Your task to perform on an android device: Open Chrome and go to the settings page Image 0: 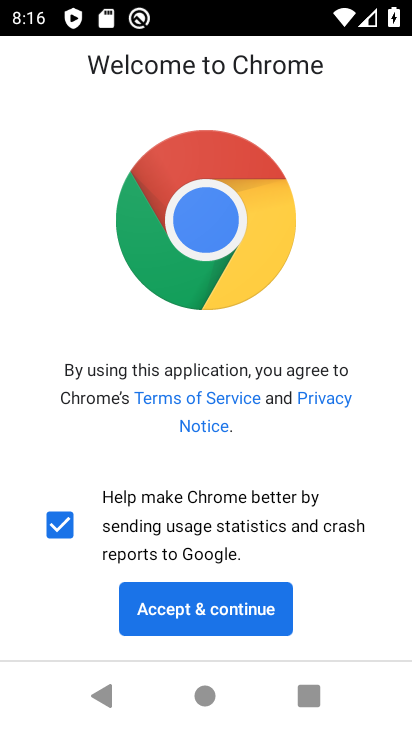
Step 0: press home button
Your task to perform on an android device: Open Chrome and go to the settings page Image 1: 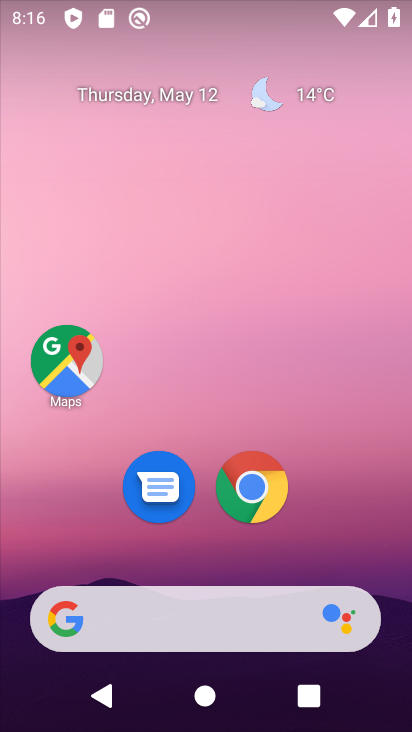
Step 1: click (245, 486)
Your task to perform on an android device: Open Chrome and go to the settings page Image 2: 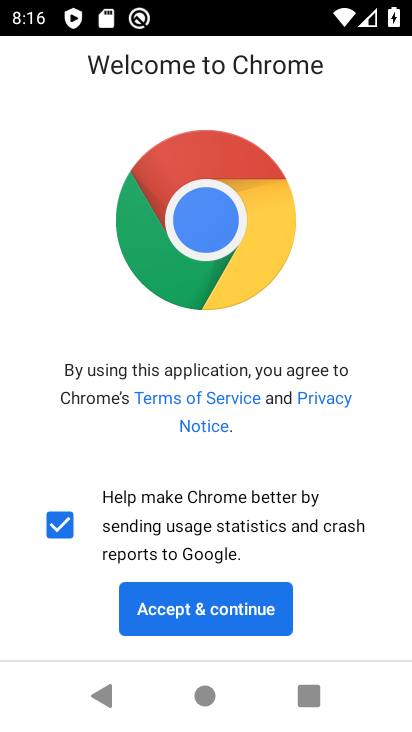
Step 2: click (191, 605)
Your task to perform on an android device: Open Chrome and go to the settings page Image 3: 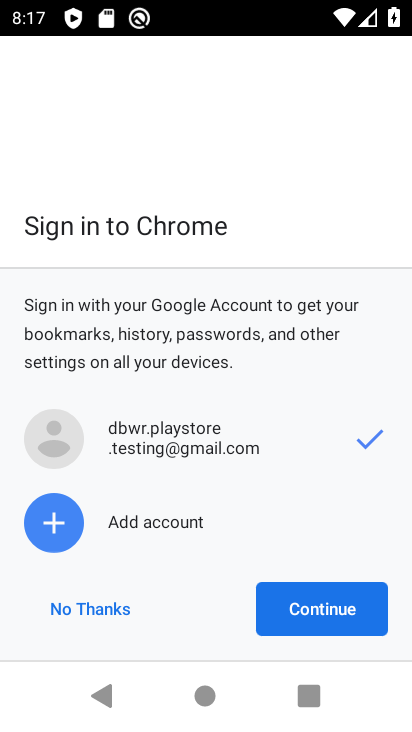
Step 3: click (91, 606)
Your task to perform on an android device: Open Chrome and go to the settings page Image 4: 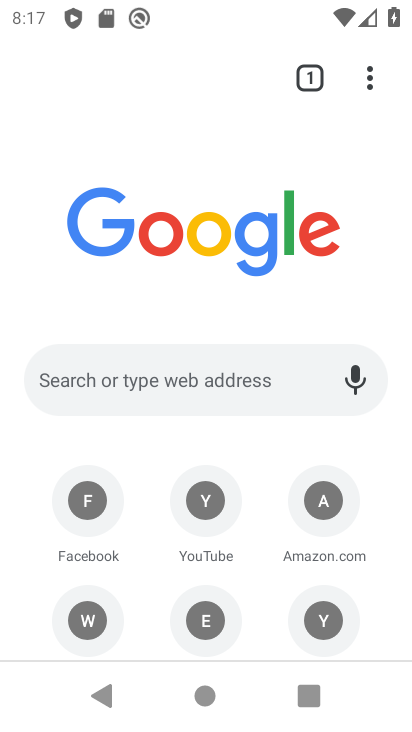
Step 4: click (360, 78)
Your task to perform on an android device: Open Chrome and go to the settings page Image 5: 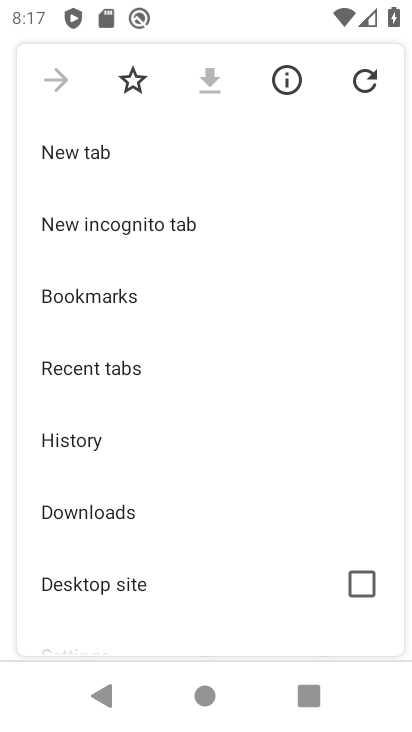
Step 5: drag from (129, 627) to (344, 107)
Your task to perform on an android device: Open Chrome and go to the settings page Image 6: 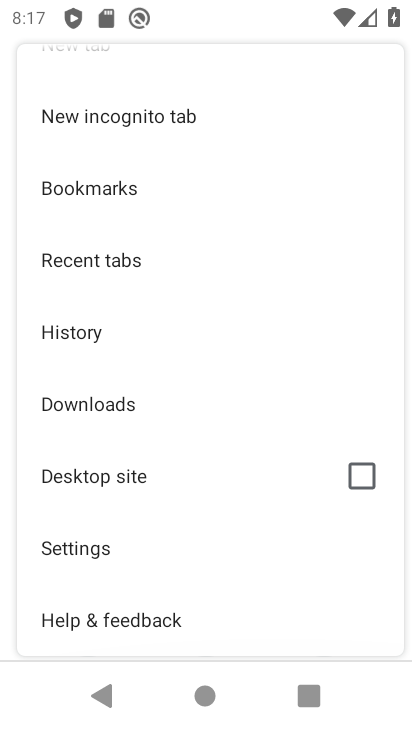
Step 6: click (92, 543)
Your task to perform on an android device: Open Chrome and go to the settings page Image 7: 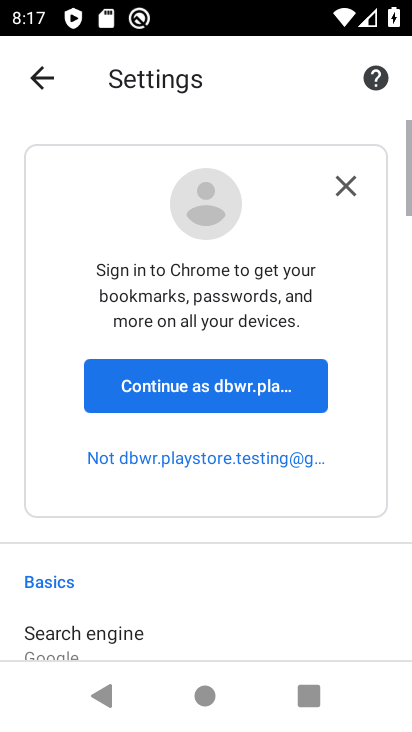
Step 7: click (336, 182)
Your task to perform on an android device: Open Chrome and go to the settings page Image 8: 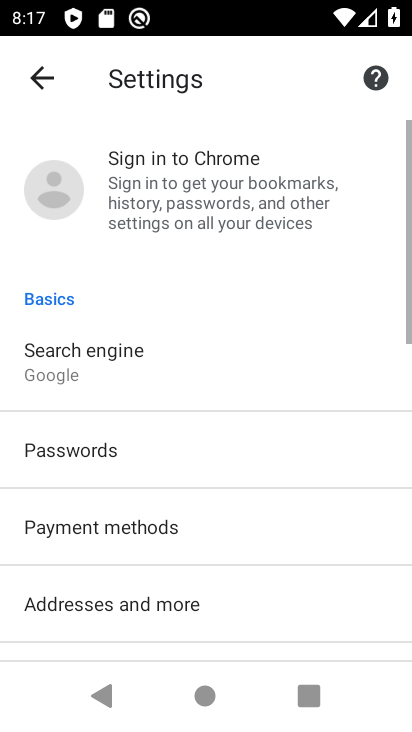
Step 8: task complete